Your task to perform on an android device: check the backup settings in the google photos Image 0: 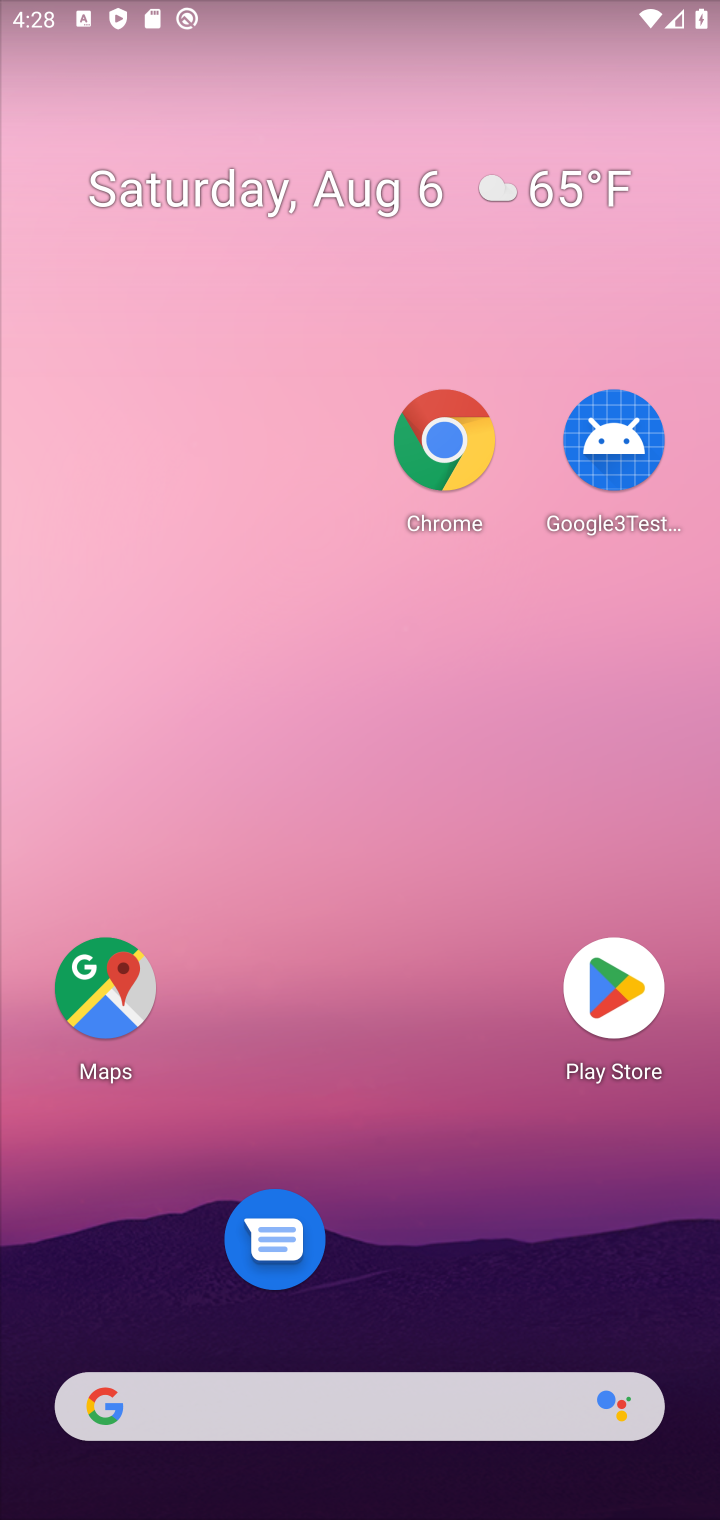
Step 0: drag from (385, 1387) to (290, 19)
Your task to perform on an android device: check the backup settings in the google photos Image 1: 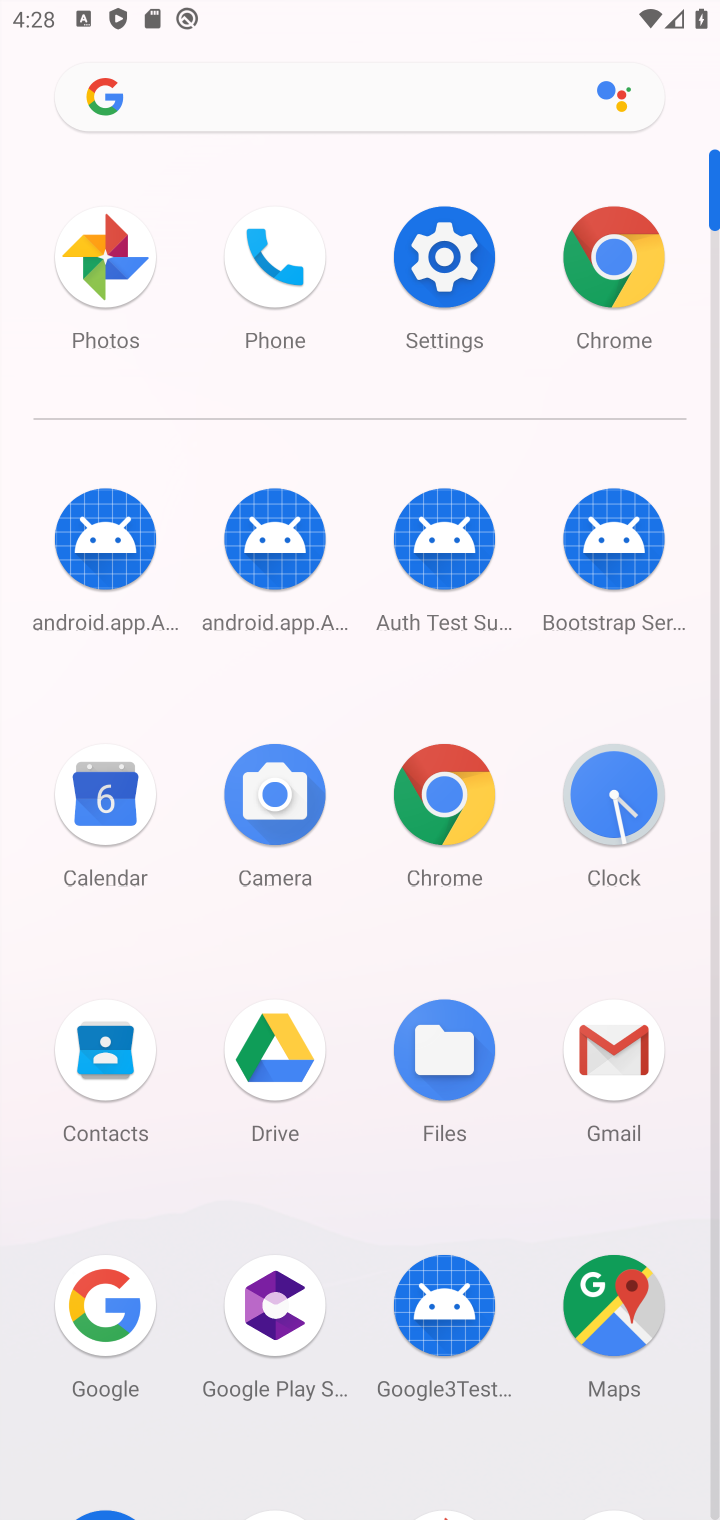
Step 1: drag from (349, 1242) to (342, 538)
Your task to perform on an android device: check the backup settings in the google photos Image 2: 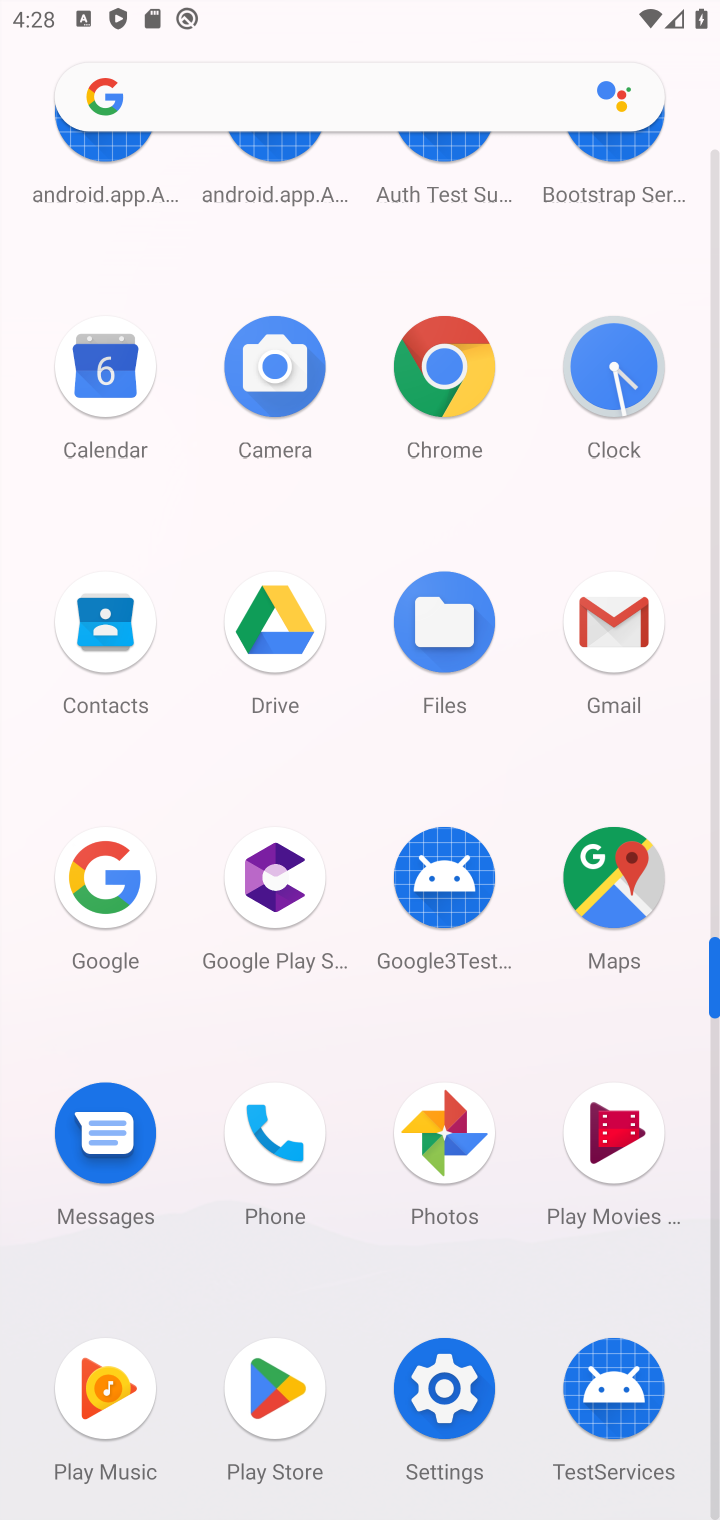
Step 2: click (441, 1117)
Your task to perform on an android device: check the backup settings in the google photos Image 3: 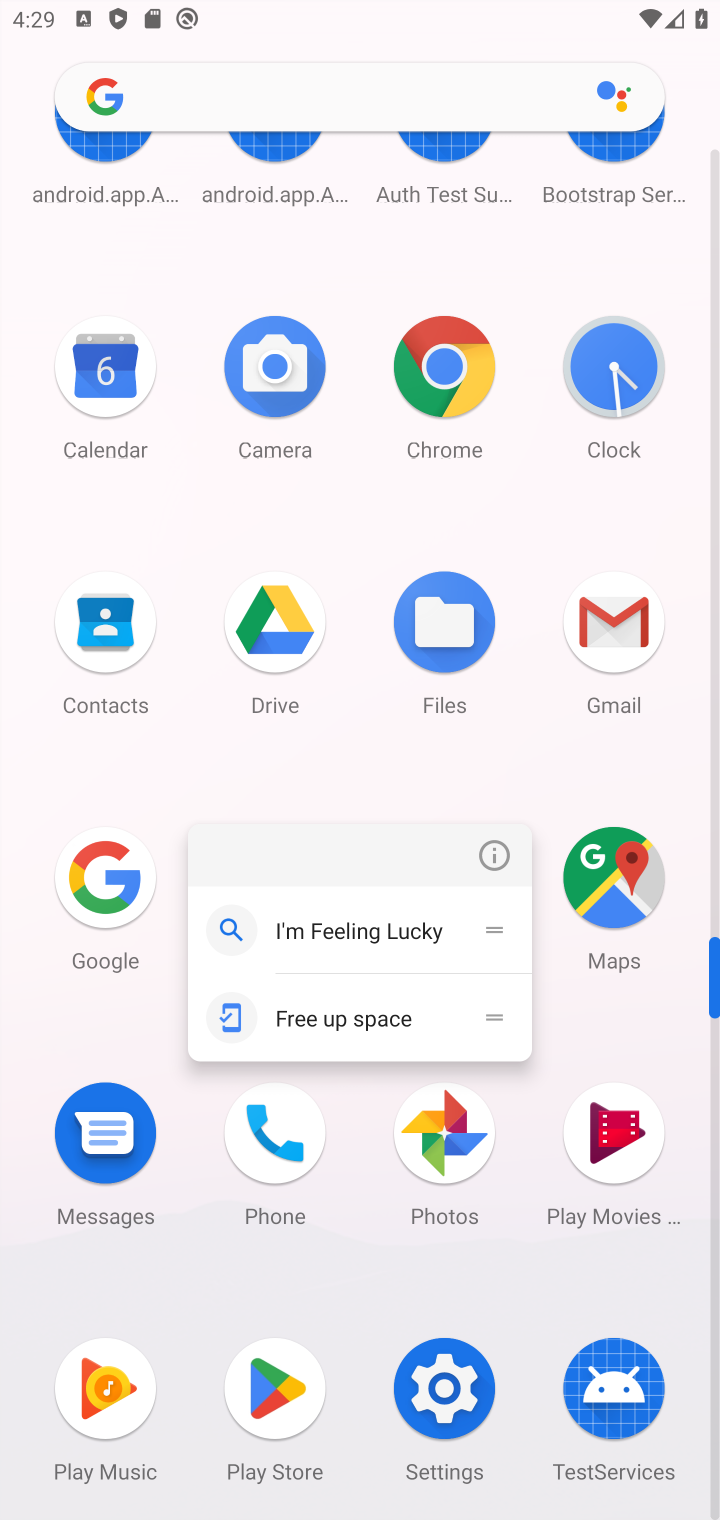
Step 3: click (427, 1181)
Your task to perform on an android device: check the backup settings in the google photos Image 4: 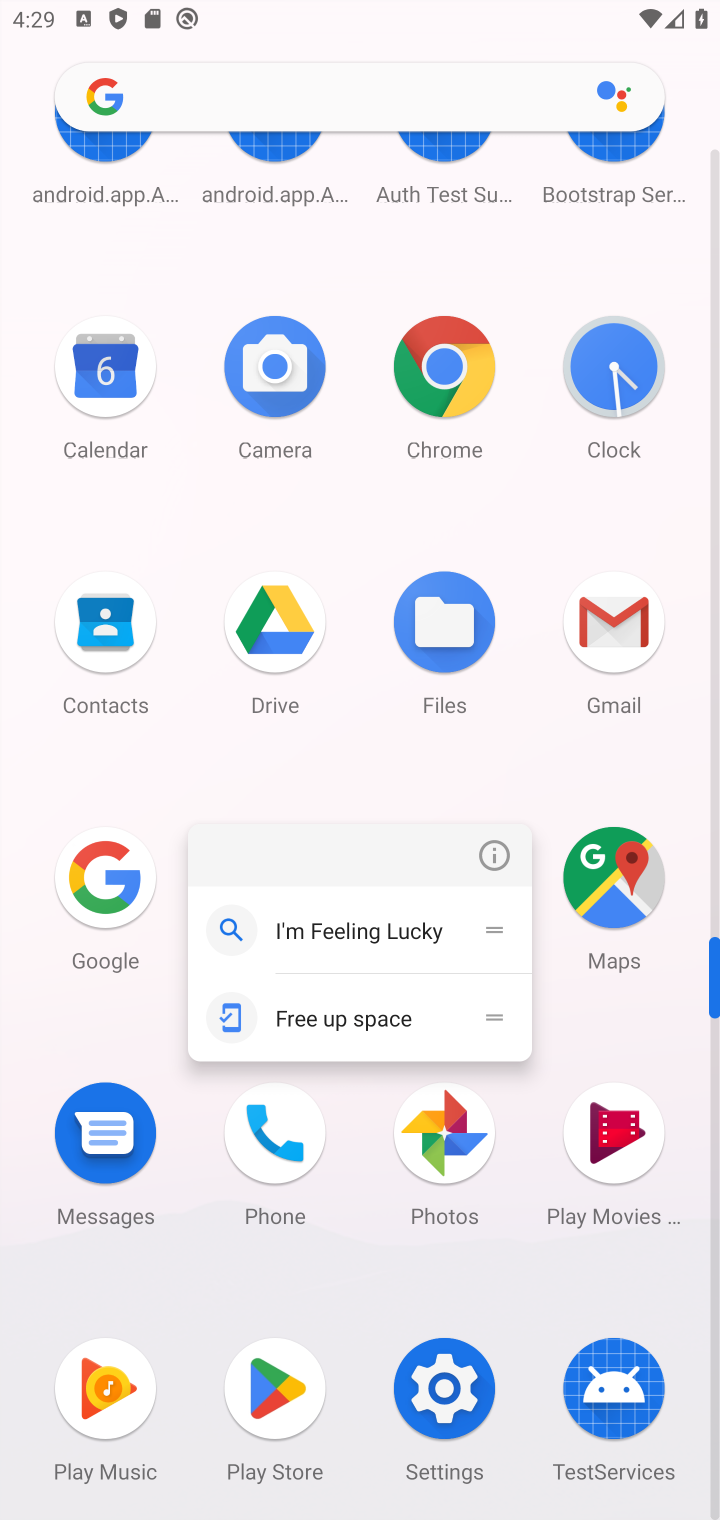
Step 4: click (435, 1153)
Your task to perform on an android device: check the backup settings in the google photos Image 5: 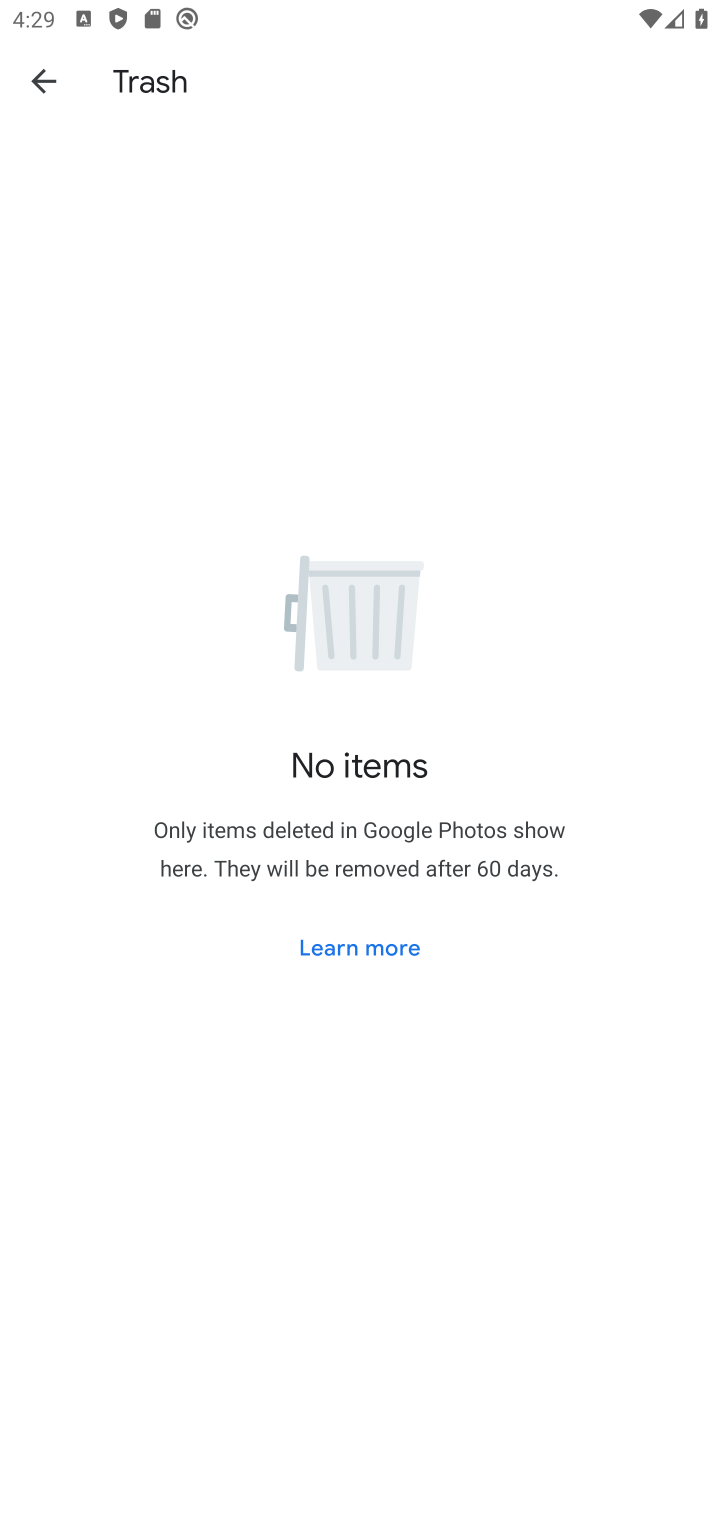
Step 5: press back button
Your task to perform on an android device: check the backup settings in the google photos Image 6: 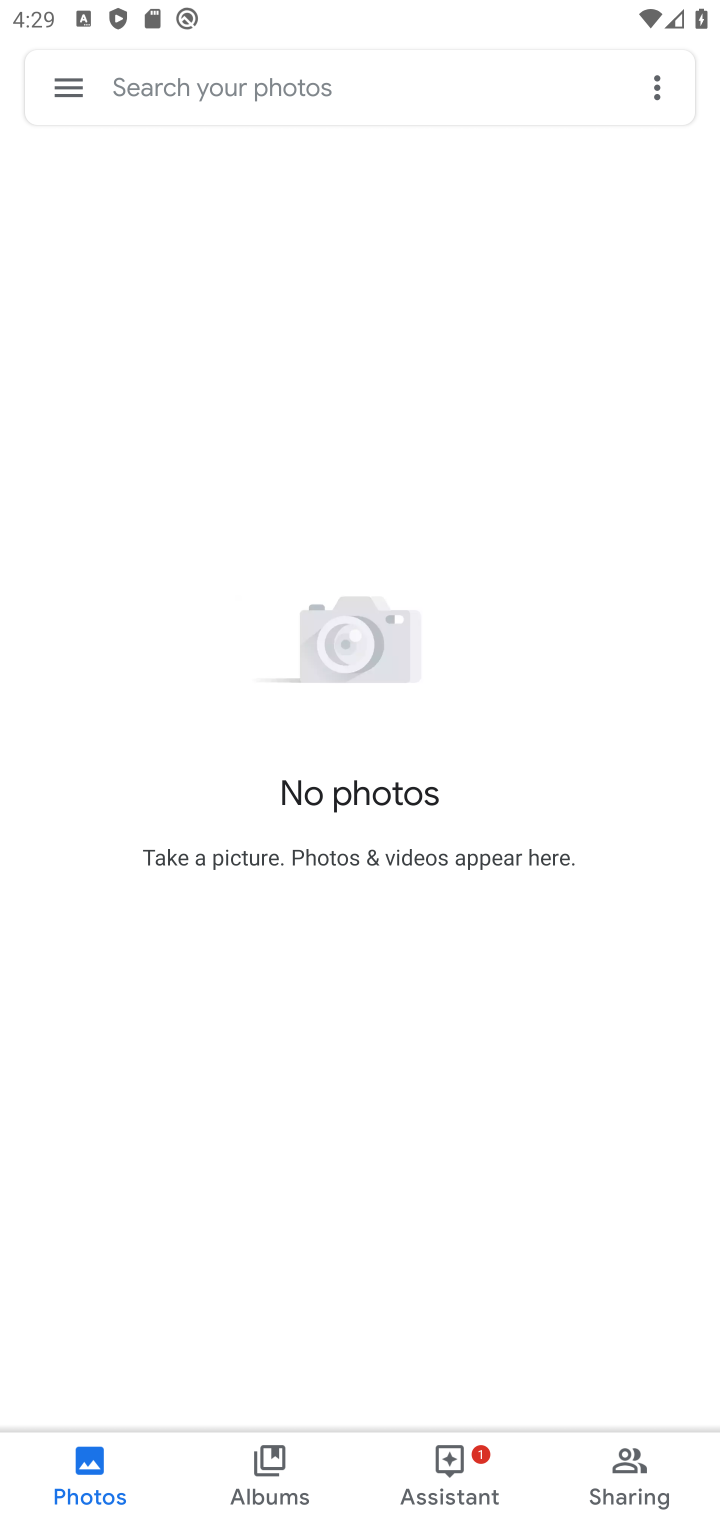
Step 6: click (61, 81)
Your task to perform on an android device: check the backup settings in the google photos Image 7: 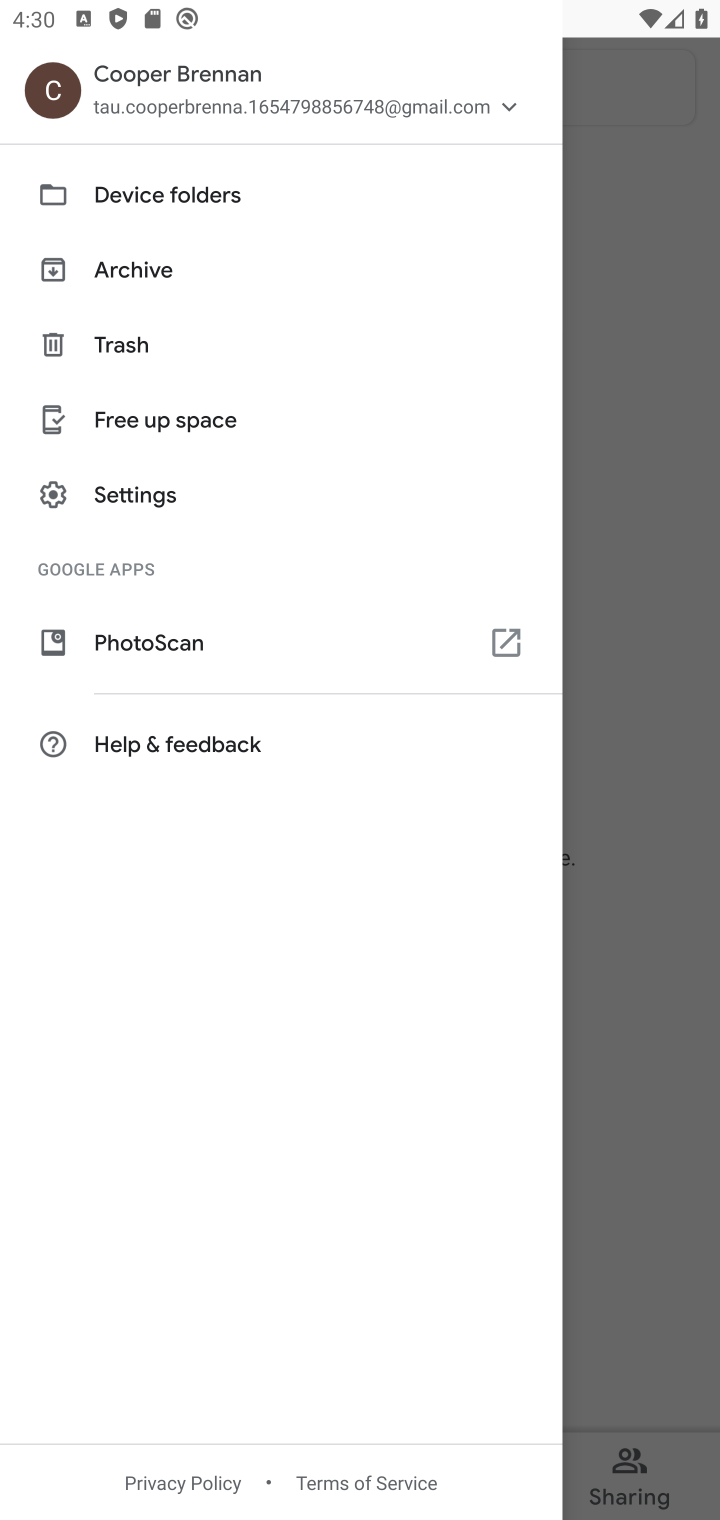
Step 7: click (154, 486)
Your task to perform on an android device: check the backup settings in the google photos Image 8: 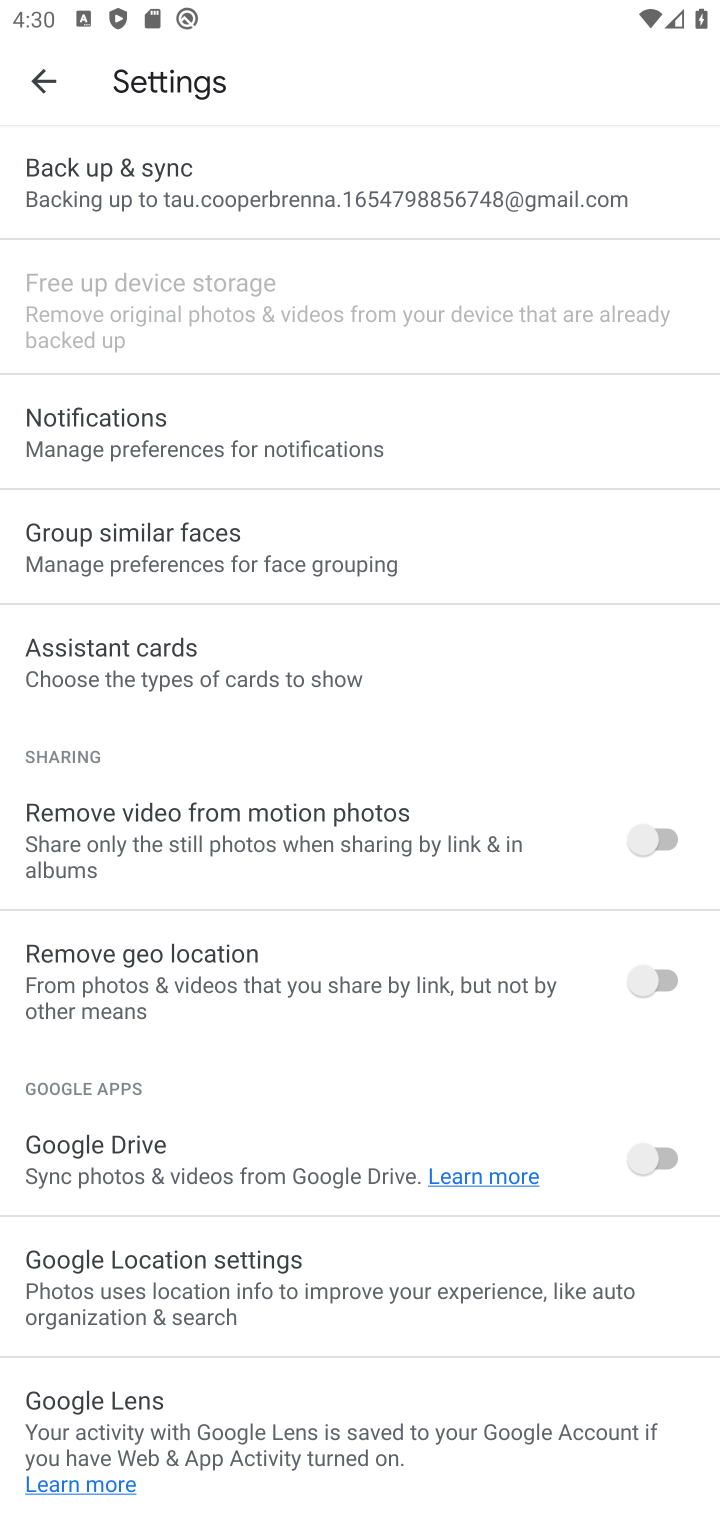
Step 8: click (231, 196)
Your task to perform on an android device: check the backup settings in the google photos Image 9: 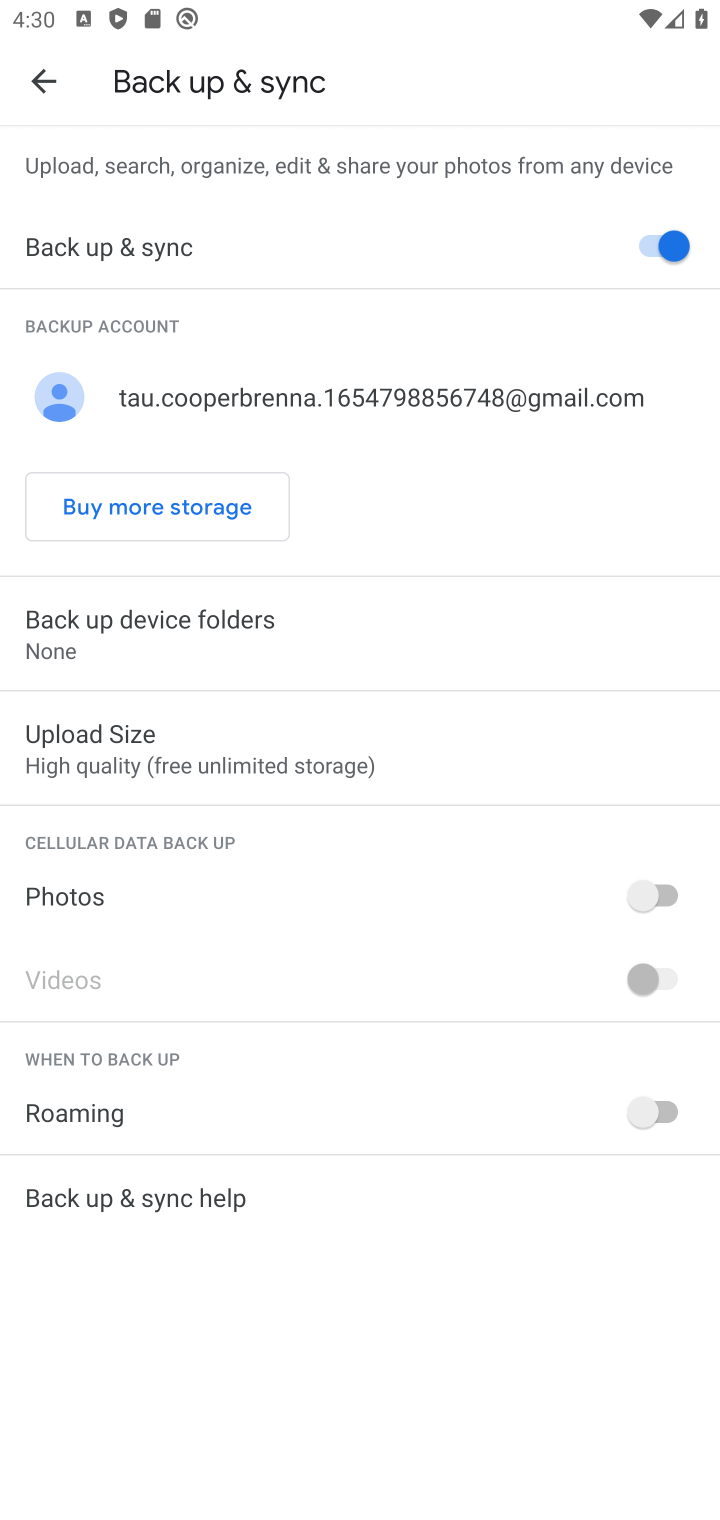
Step 9: task complete